Your task to perform on an android device: Turn off the flashlight Image 0: 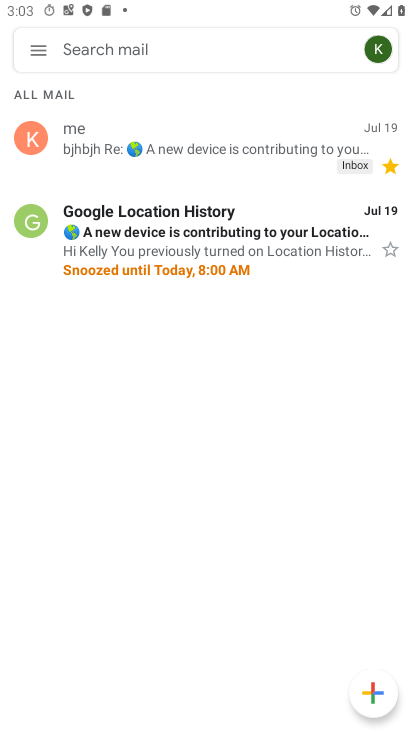
Step 0: press home button
Your task to perform on an android device: Turn off the flashlight Image 1: 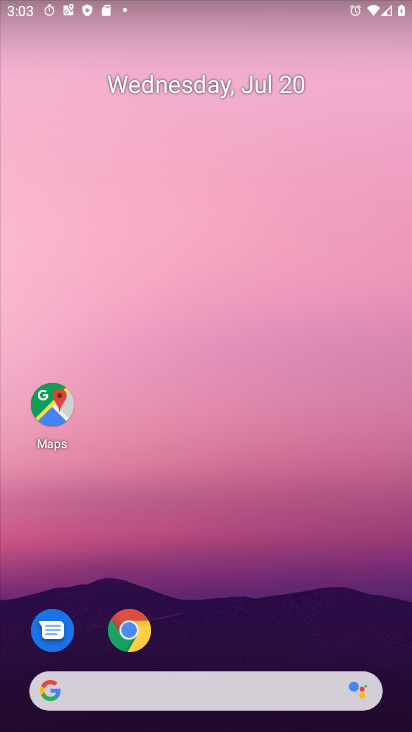
Step 1: task complete